Your task to perform on an android device: open sync settings in chrome Image 0: 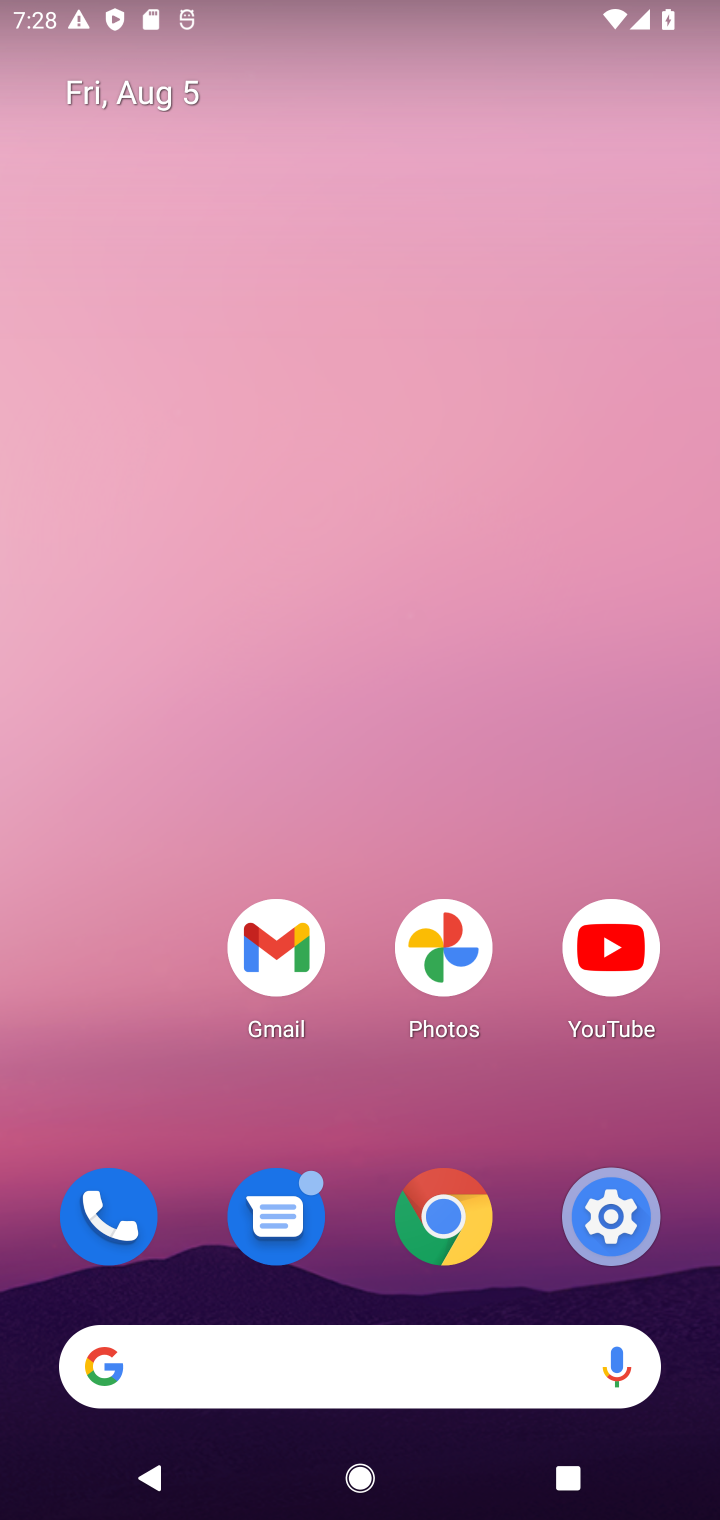
Step 0: click (449, 1202)
Your task to perform on an android device: open sync settings in chrome Image 1: 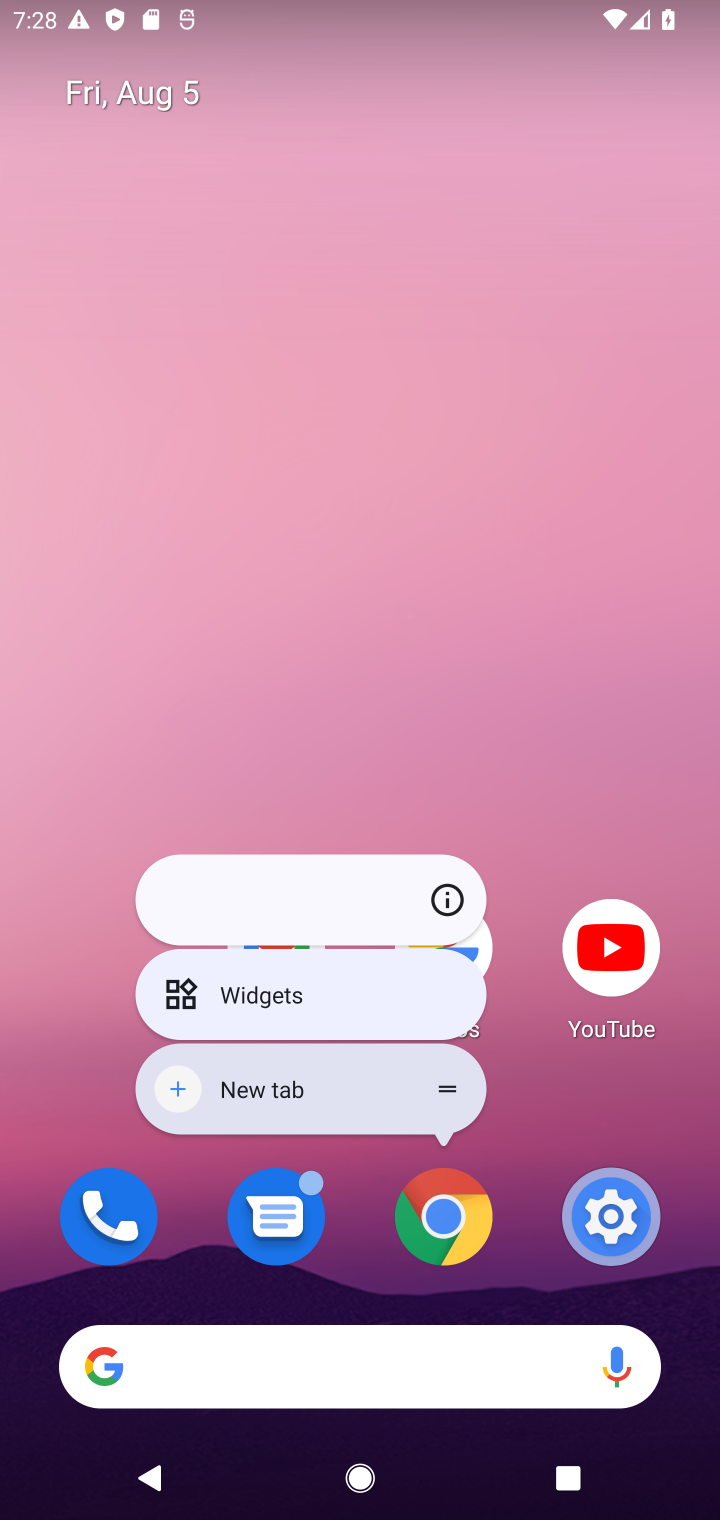
Step 1: click (447, 1210)
Your task to perform on an android device: open sync settings in chrome Image 2: 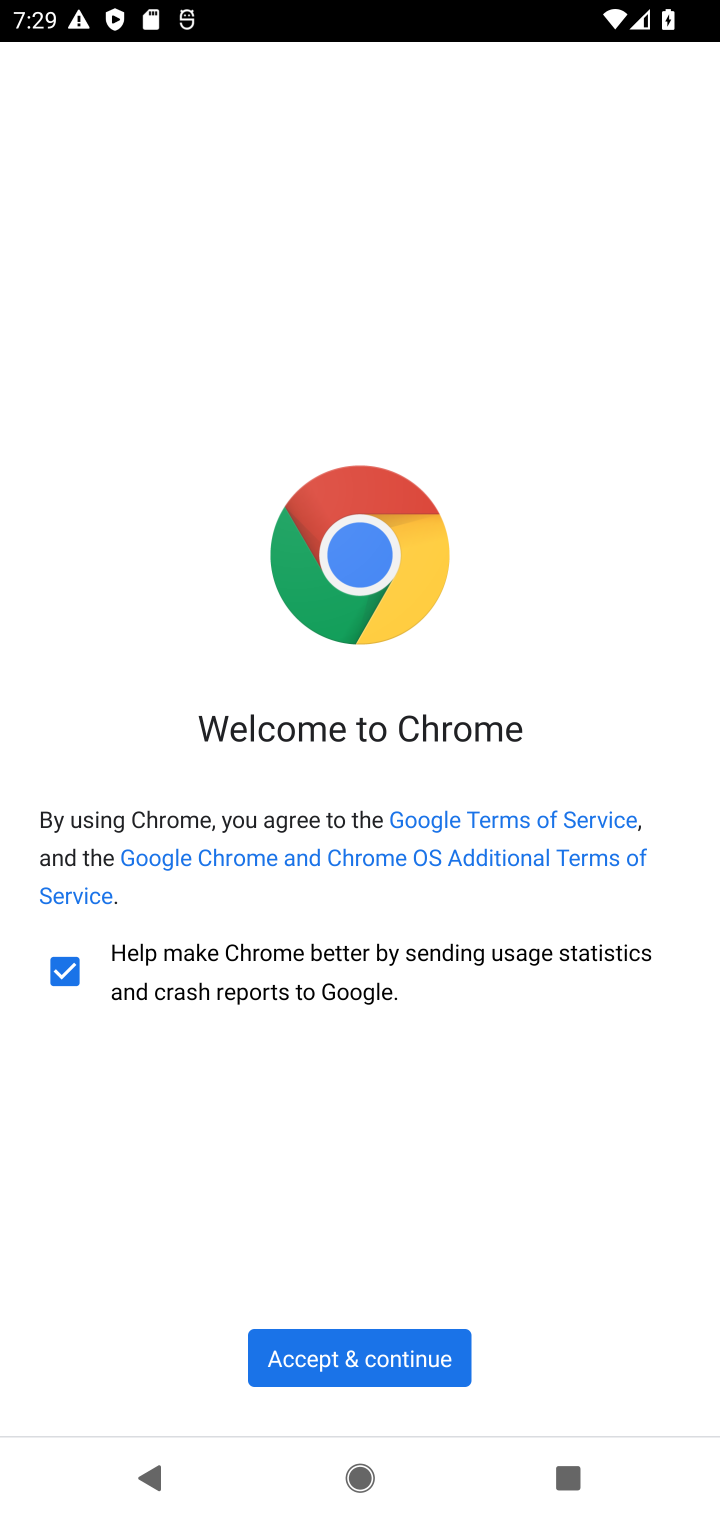
Step 2: click (418, 1338)
Your task to perform on an android device: open sync settings in chrome Image 3: 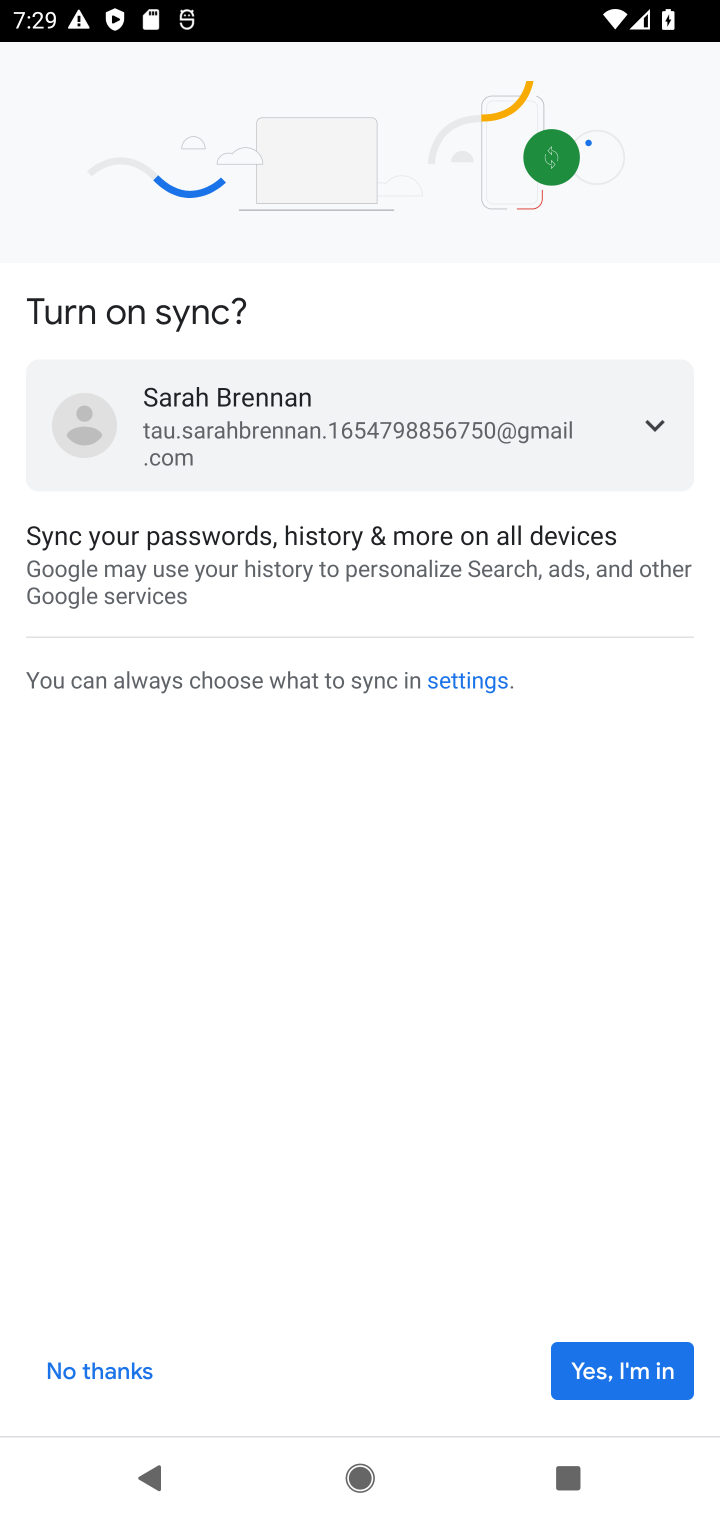
Step 3: click (625, 1384)
Your task to perform on an android device: open sync settings in chrome Image 4: 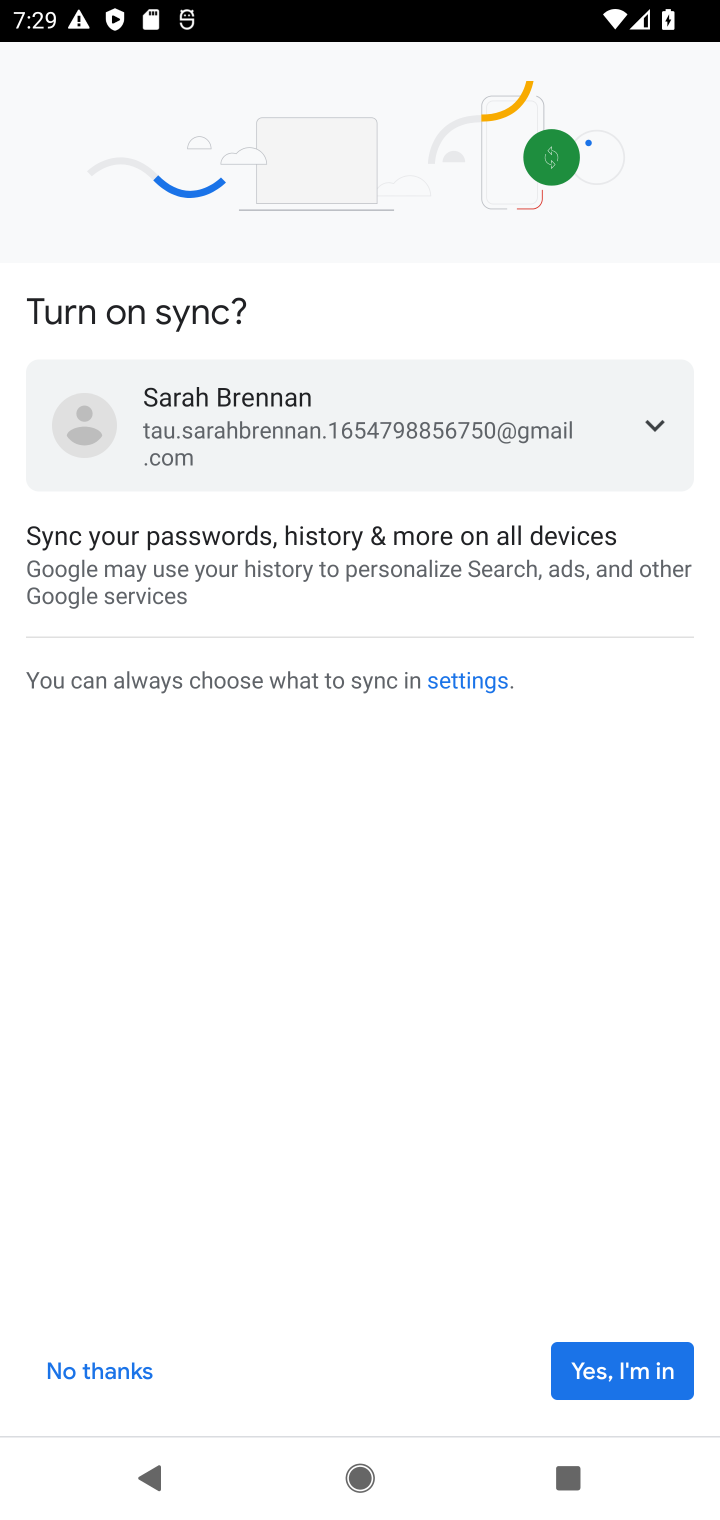
Step 4: click (625, 1384)
Your task to perform on an android device: open sync settings in chrome Image 5: 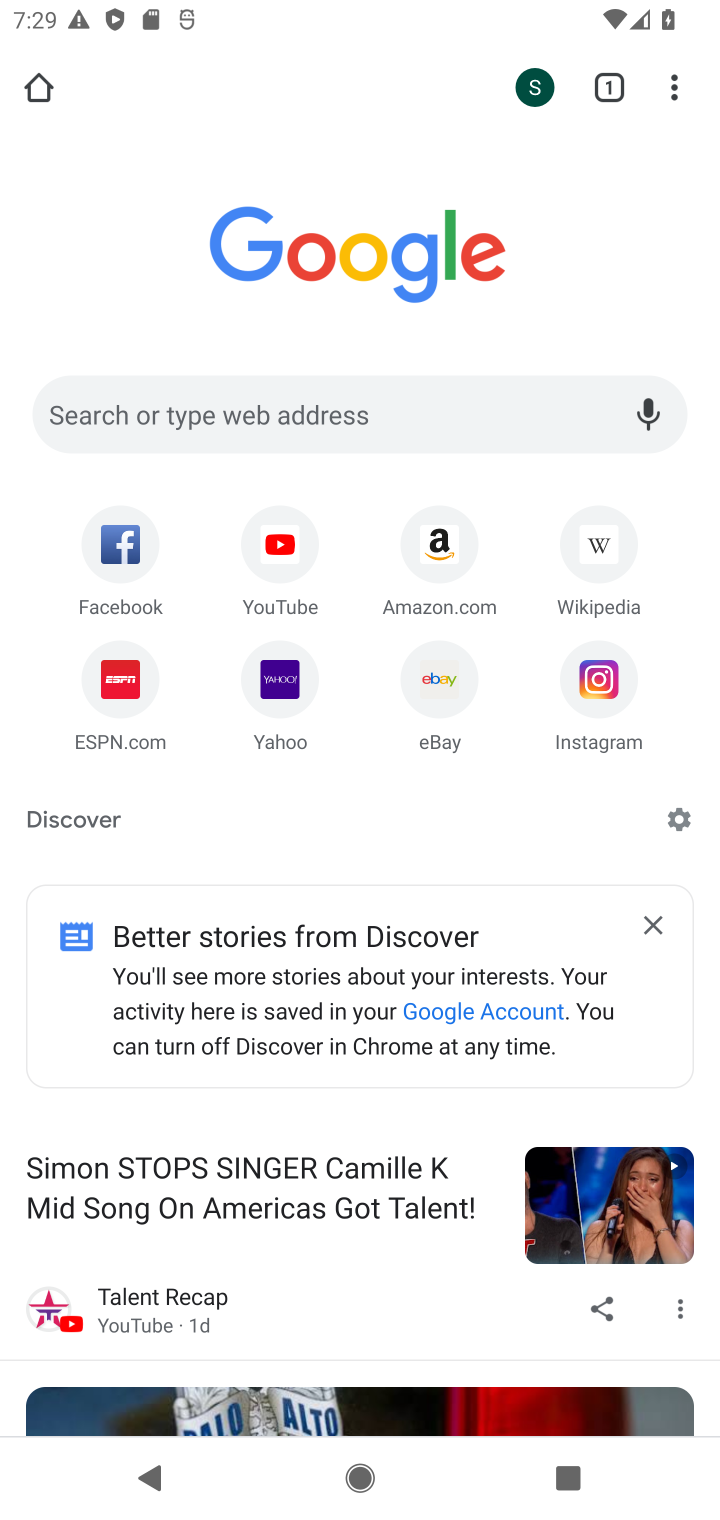
Step 5: click (671, 86)
Your task to perform on an android device: open sync settings in chrome Image 6: 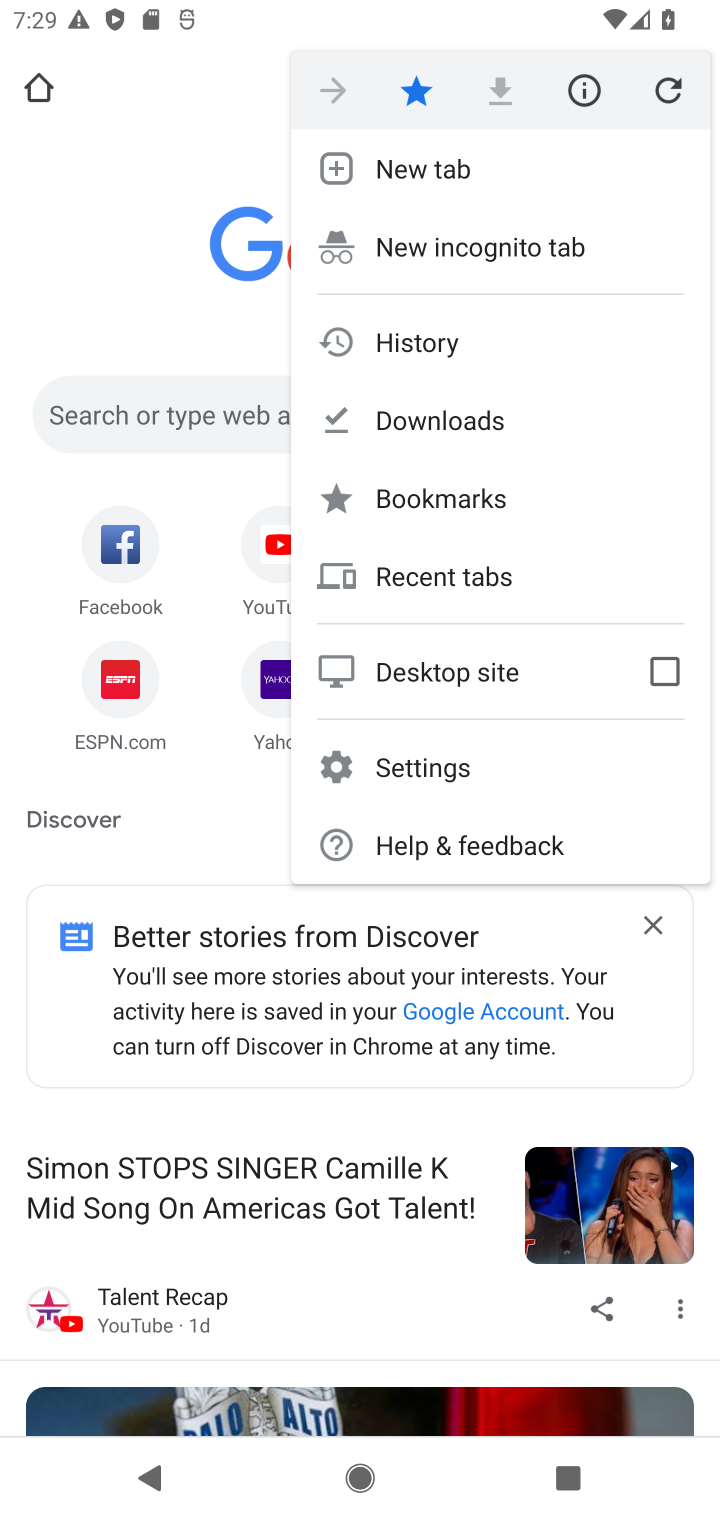
Step 6: click (411, 764)
Your task to perform on an android device: open sync settings in chrome Image 7: 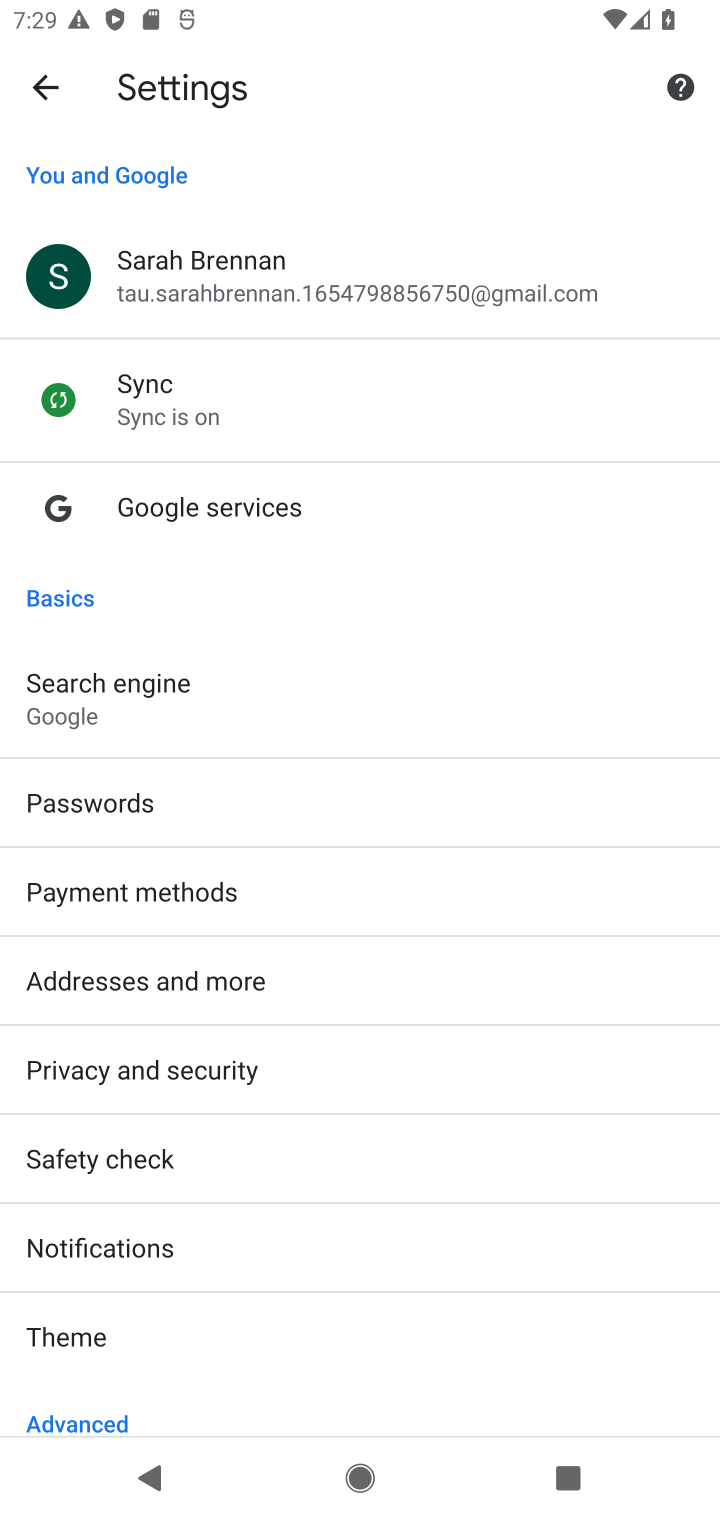
Step 7: click (203, 418)
Your task to perform on an android device: open sync settings in chrome Image 8: 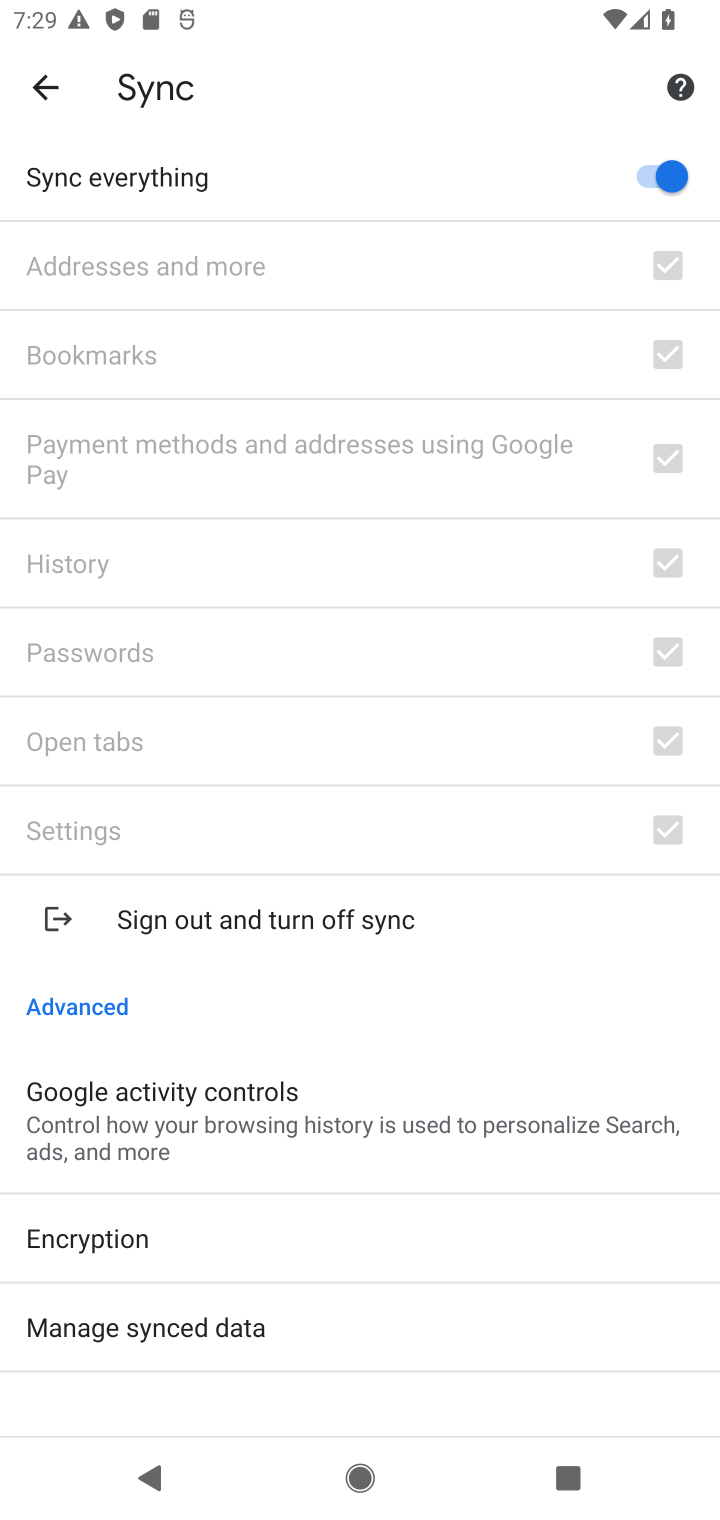
Step 8: task complete